Your task to perform on an android device: Is it going to rain this weekend? Image 0: 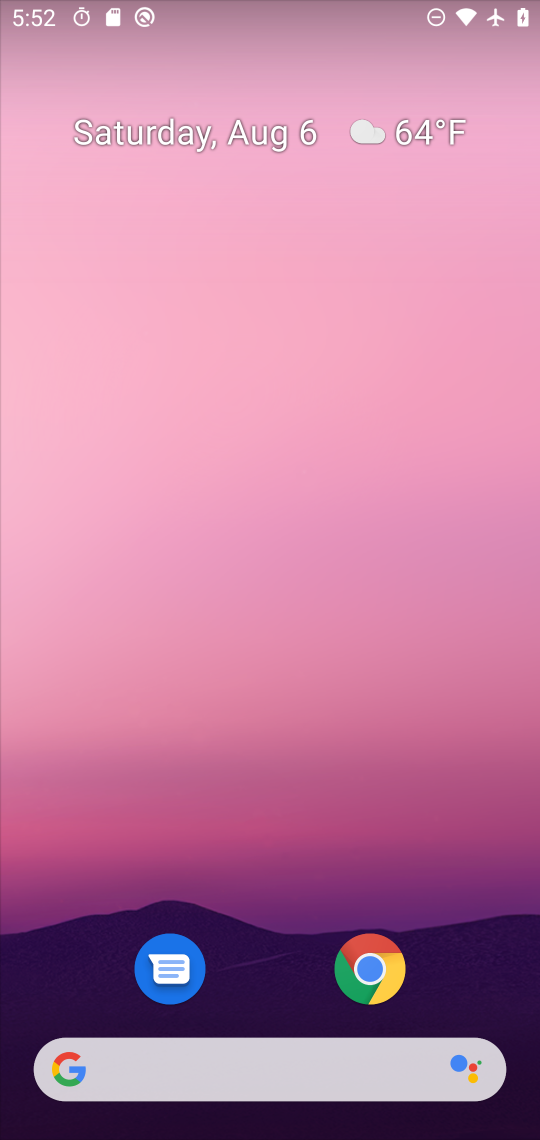
Step 0: press home button
Your task to perform on an android device: Is it going to rain this weekend? Image 1: 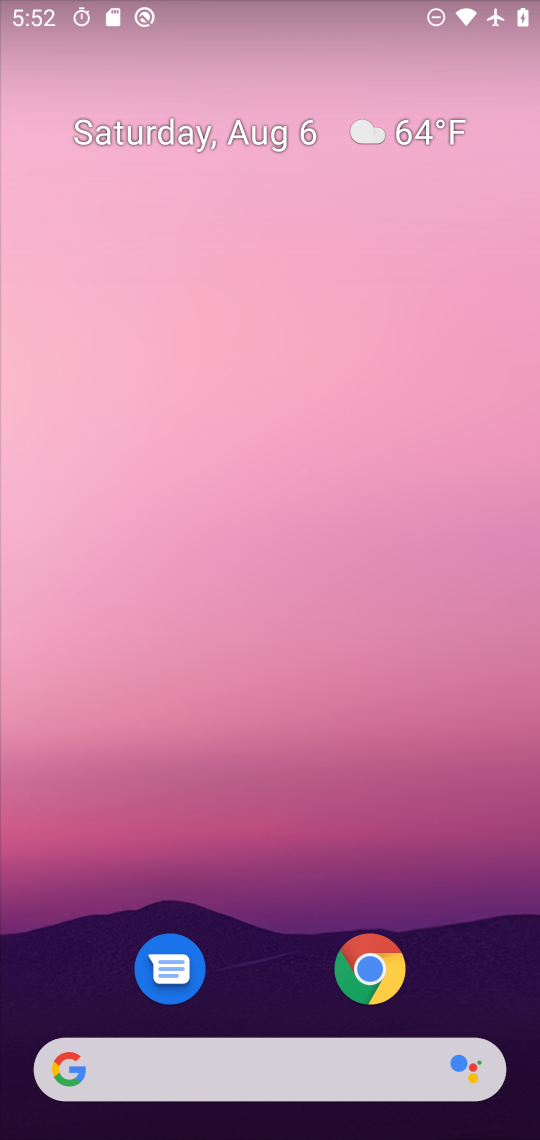
Step 1: click (59, 1073)
Your task to perform on an android device: Is it going to rain this weekend? Image 2: 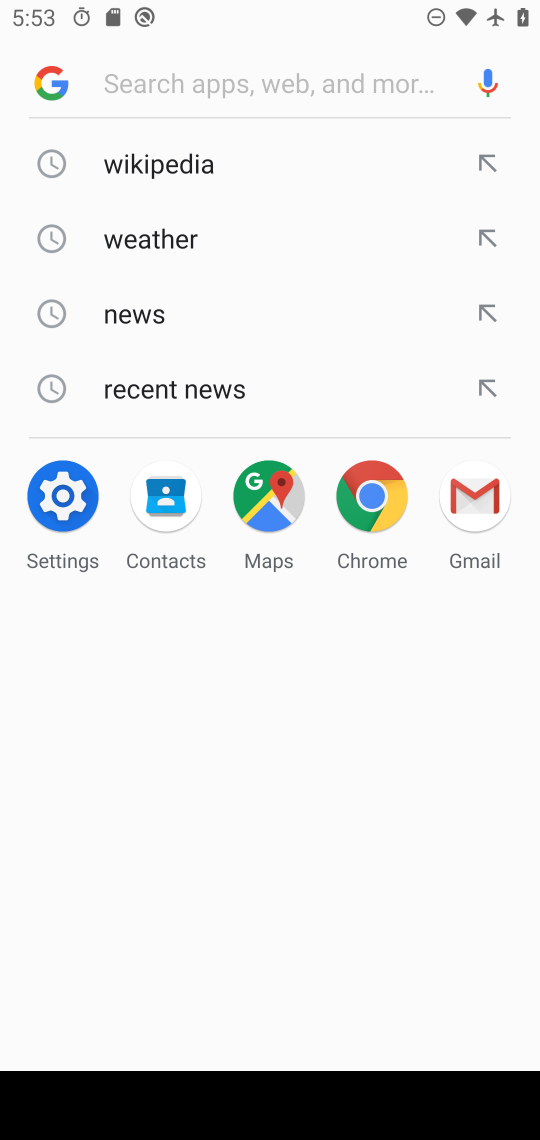
Step 2: type " rain this weekend?"
Your task to perform on an android device: Is it going to rain this weekend? Image 3: 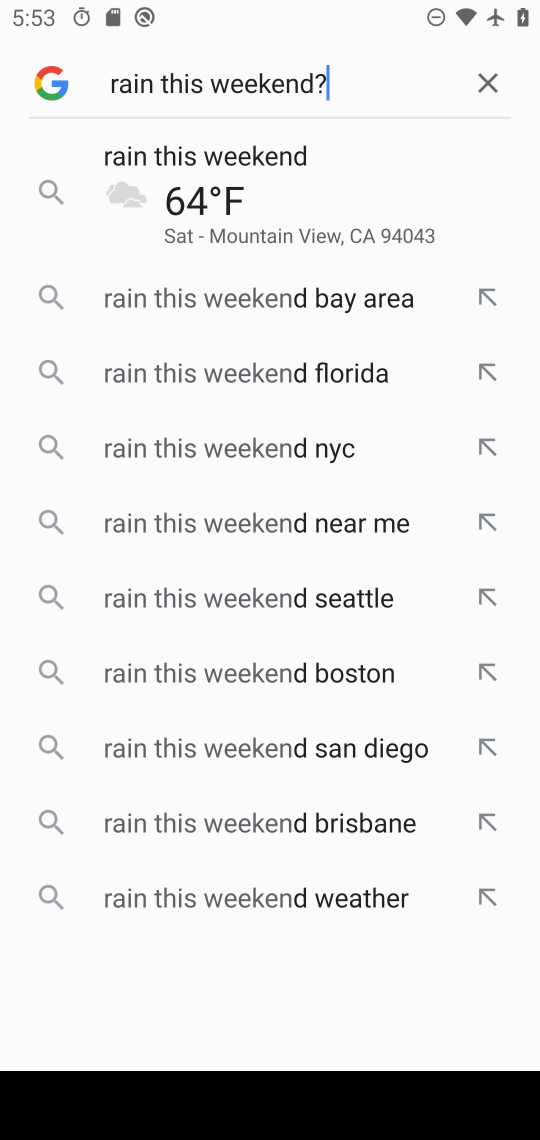
Step 3: press enter
Your task to perform on an android device: Is it going to rain this weekend? Image 4: 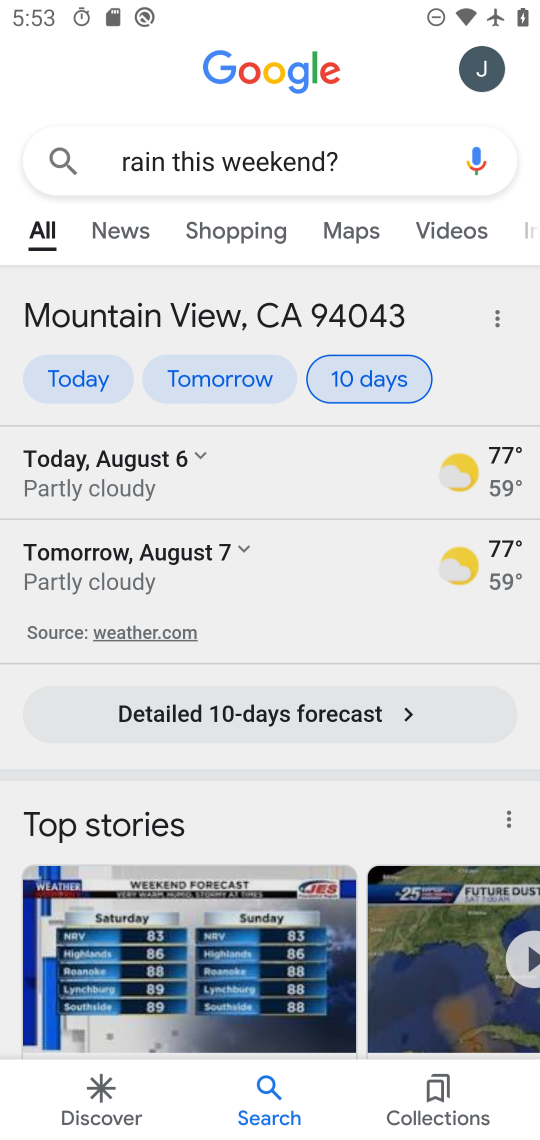
Step 4: task complete